Your task to perform on an android device: Open Google Image 0: 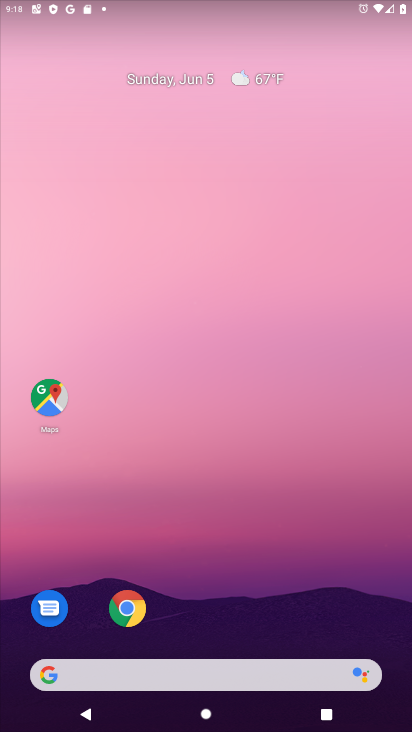
Step 0: click (119, 669)
Your task to perform on an android device: Open Google Image 1: 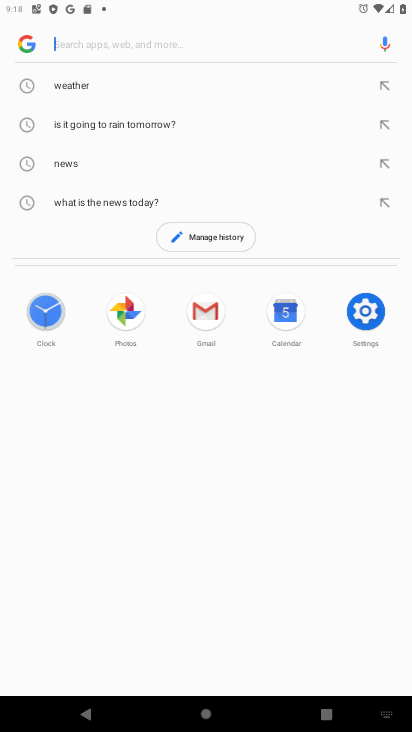
Step 1: click (30, 43)
Your task to perform on an android device: Open Google Image 2: 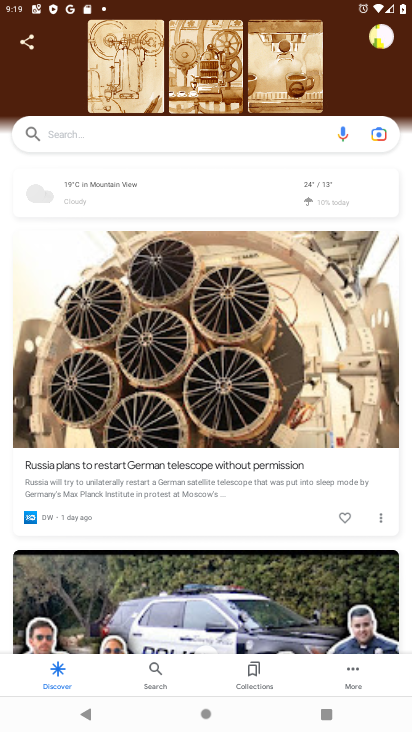
Step 2: task complete